Your task to perform on an android device: Look up the top rated 18v miter saw on Home Depot. Image 0: 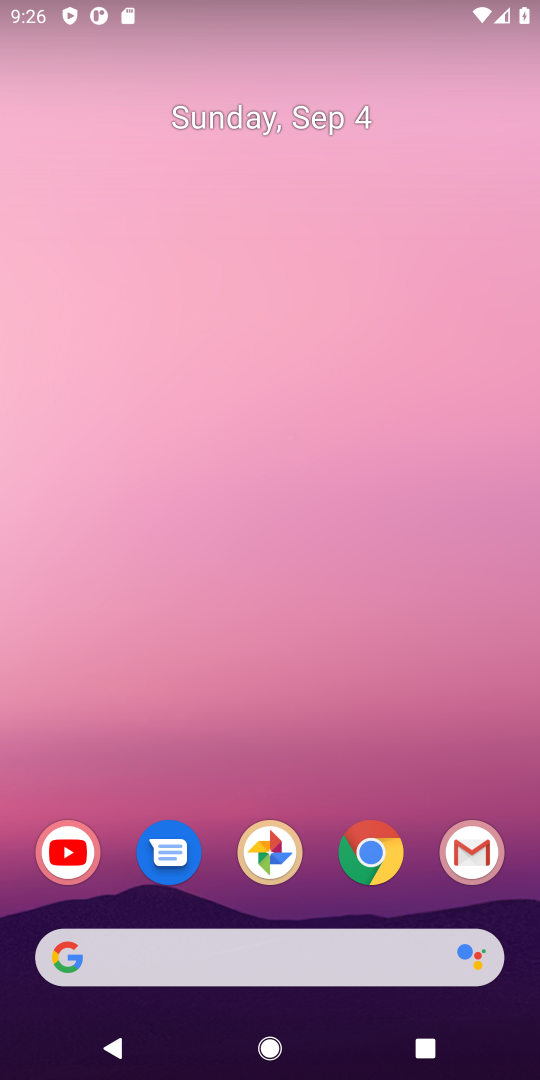
Step 0: drag from (427, 791) to (259, 8)
Your task to perform on an android device: Look up the top rated 18v miter saw on Home Depot. Image 1: 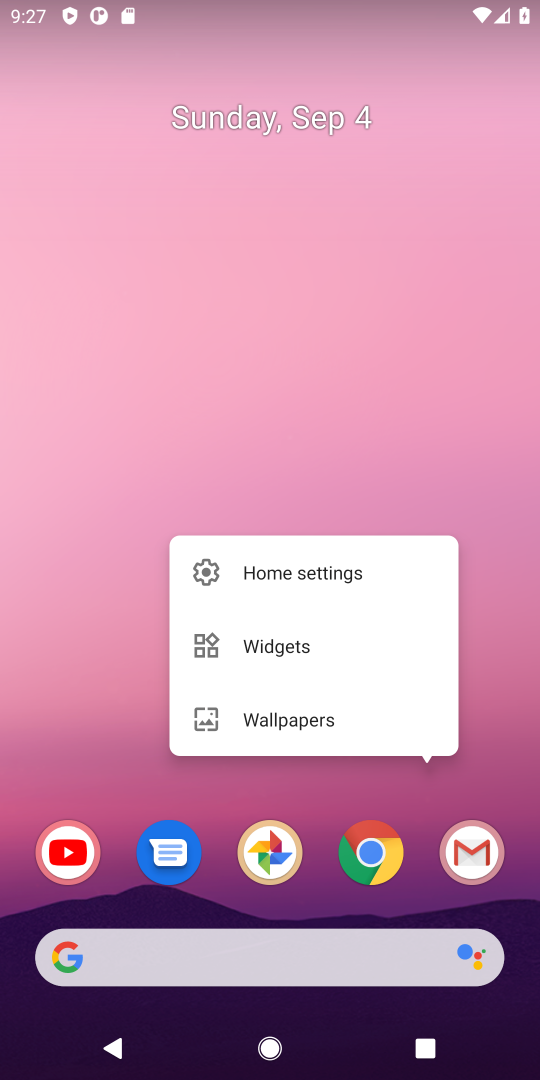
Step 1: click (274, 378)
Your task to perform on an android device: Look up the top rated 18v miter saw on Home Depot. Image 2: 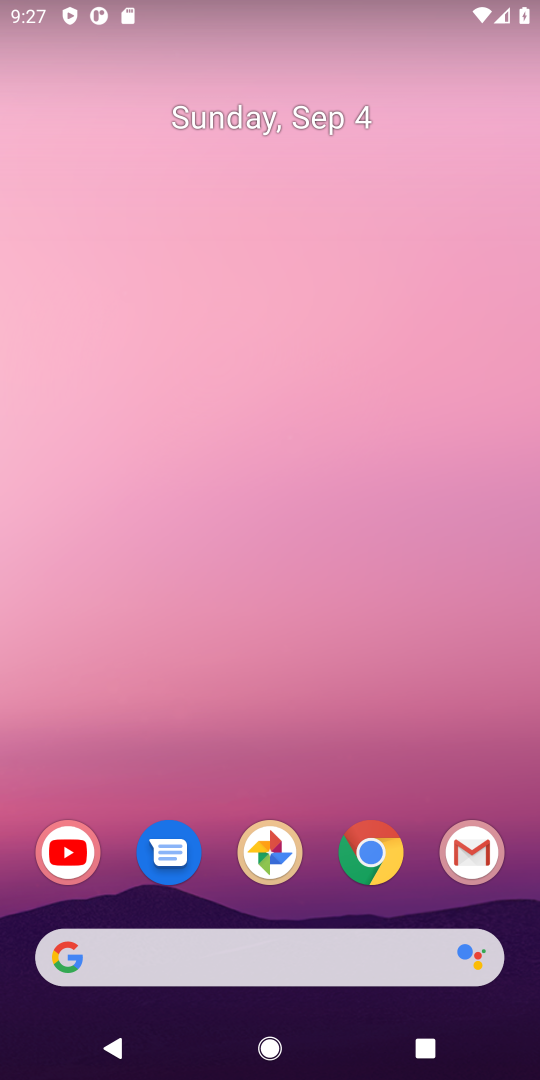
Step 2: drag from (429, 806) to (203, 38)
Your task to perform on an android device: Look up the top rated 18v miter saw on Home Depot. Image 3: 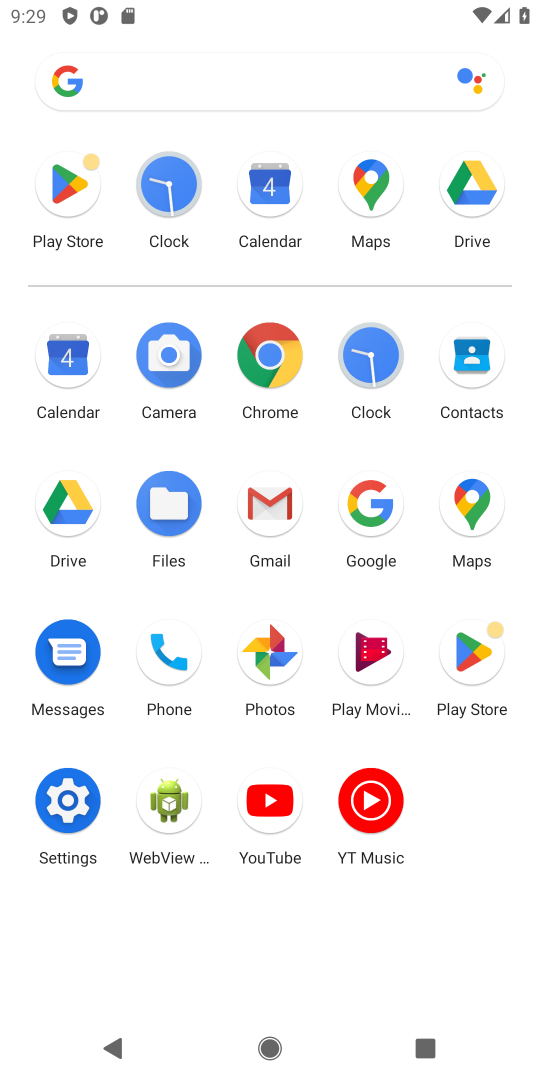
Step 3: click (383, 519)
Your task to perform on an android device: Look up the top rated 18v miter saw on Home Depot. Image 4: 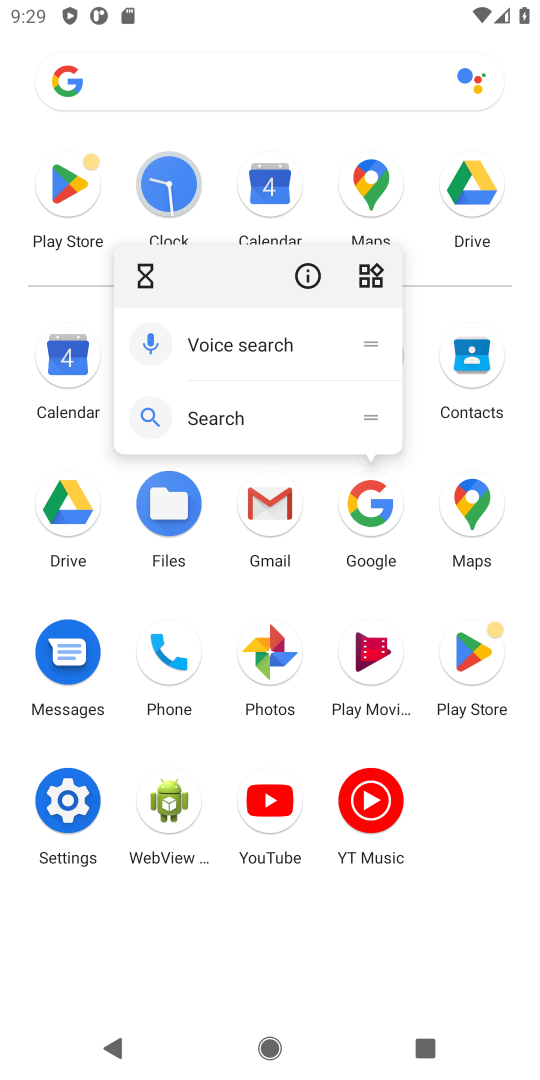
Step 4: click (370, 491)
Your task to perform on an android device: Look up the top rated 18v miter saw on Home Depot. Image 5: 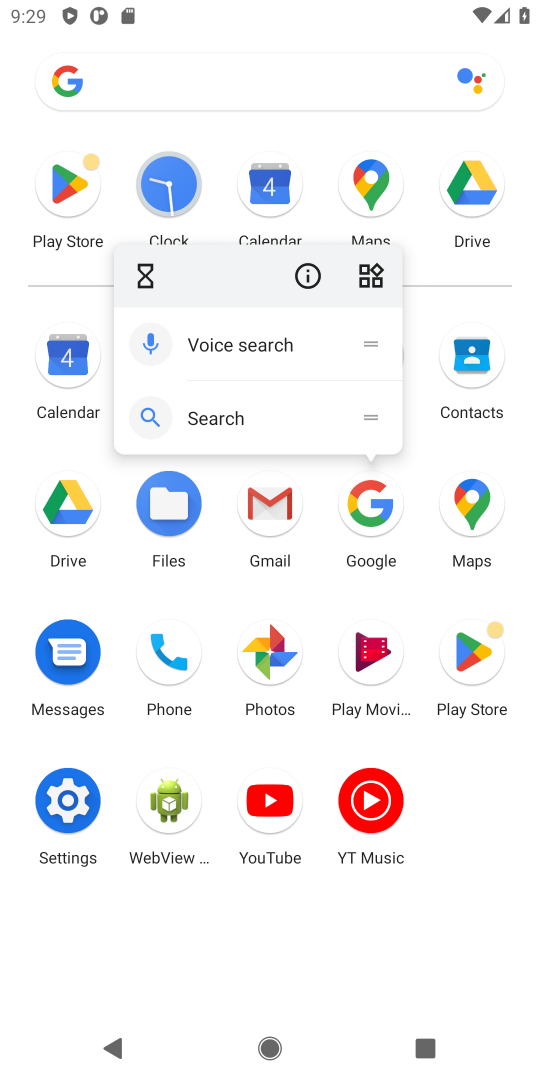
Step 5: click (374, 506)
Your task to perform on an android device: Look up the top rated 18v miter saw on Home Depot. Image 6: 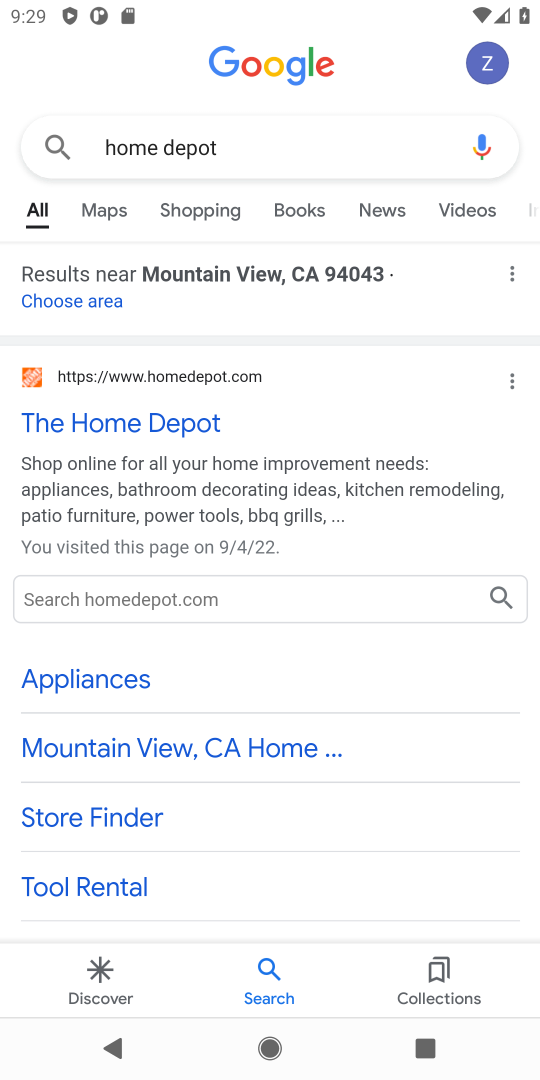
Step 6: click (209, 422)
Your task to perform on an android device: Look up the top rated 18v miter saw on Home Depot. Image 7: 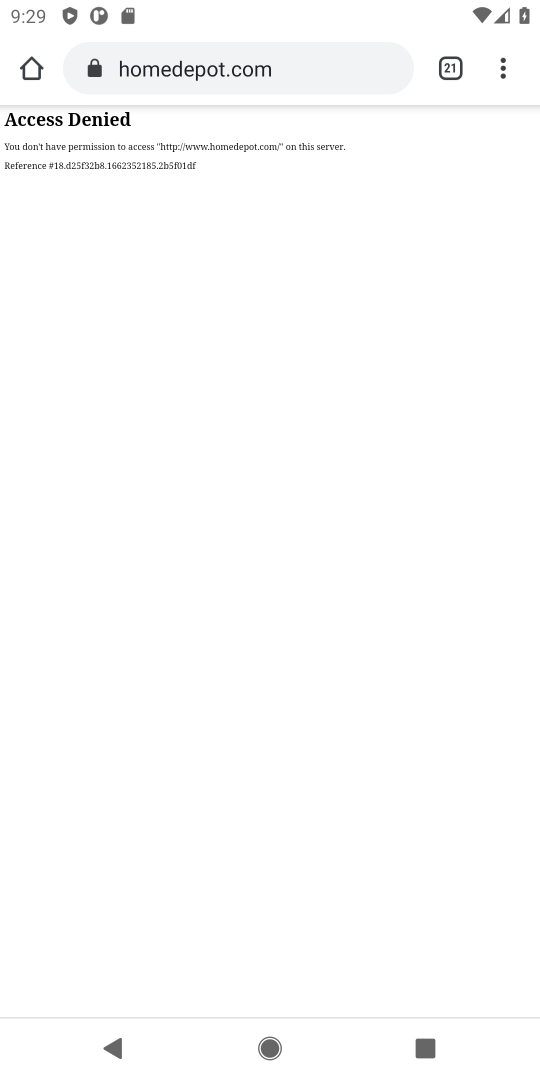
Step 7: task complete